Your task to perform on an android device: turn on the 24-hour format for clock Image 0: 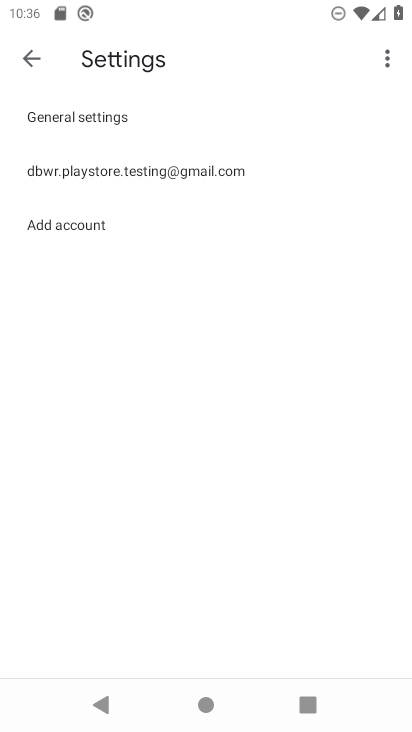
Step 0: press home button
Your task to perform on an android device: turn on the 24-hour format for clock Image 1: 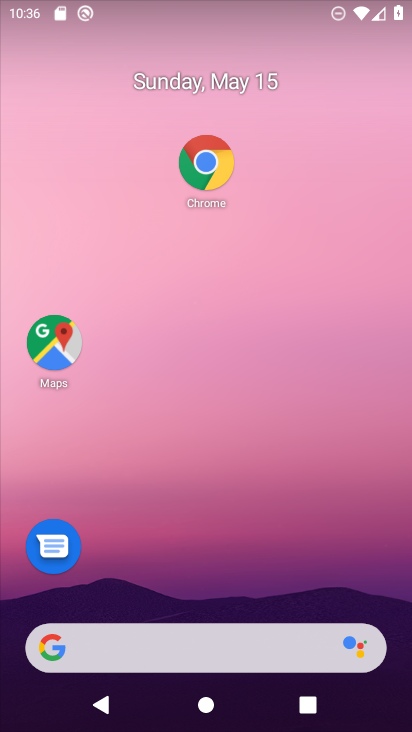
Step 1: drag from (257, 547) to (362, 190)
Your task to perform on an android device: turn on the 24-hour format for clock Image 2: 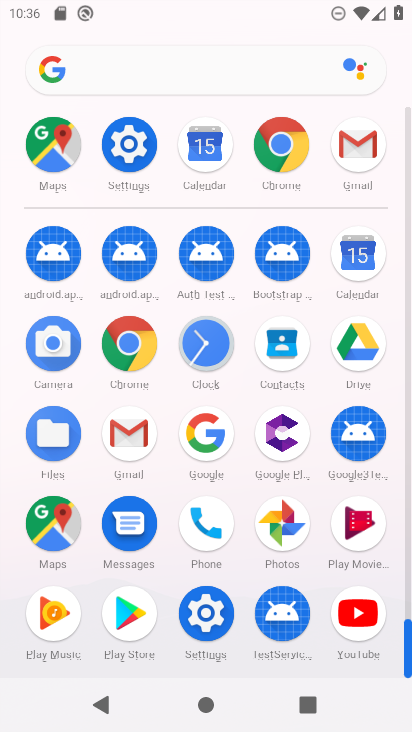
Step 2: click (201, 339)
Your task to perform on an android device: turn on the 24-hour format for clock Image 3: 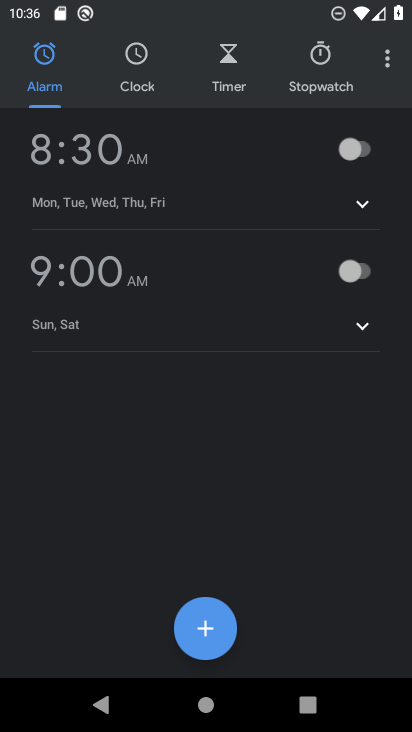
Step 3: click (370, 54)
Your task to perform on an android device: turn on the 24-hour format for clock Image 4: 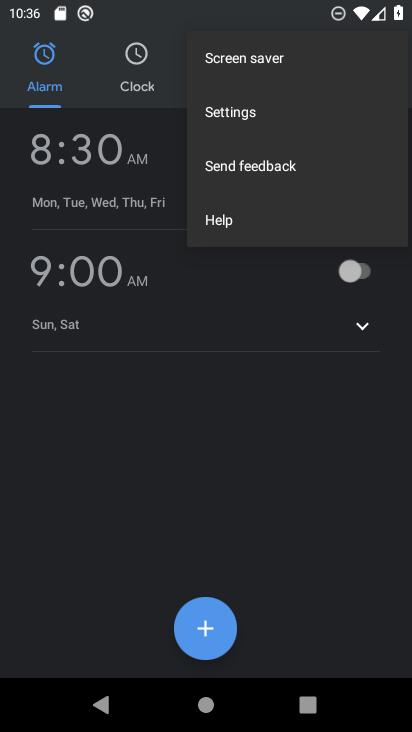
Step 4: click (290, 118)
Your task to perform on an android device: turn on the 24-hour format for clock Image 5: 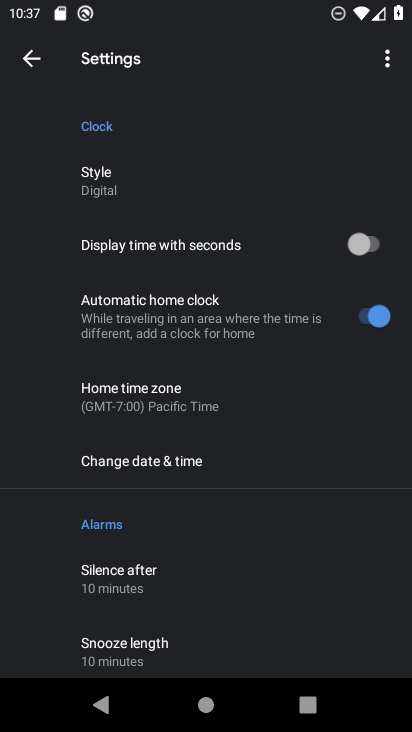
Step 5: click (281, 558)
Your task to perform on an android device: turn on the 24-hour format for clock Image 6: 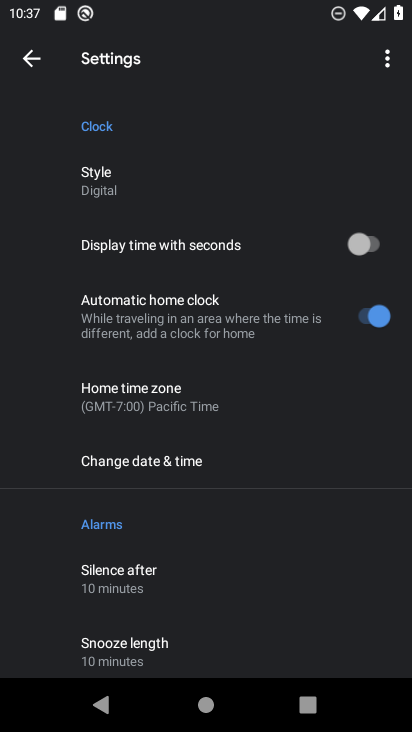
Step 6: click (171, 459)
Your task to perform on an android device: turn on the 24-hour format for clock Image 7: 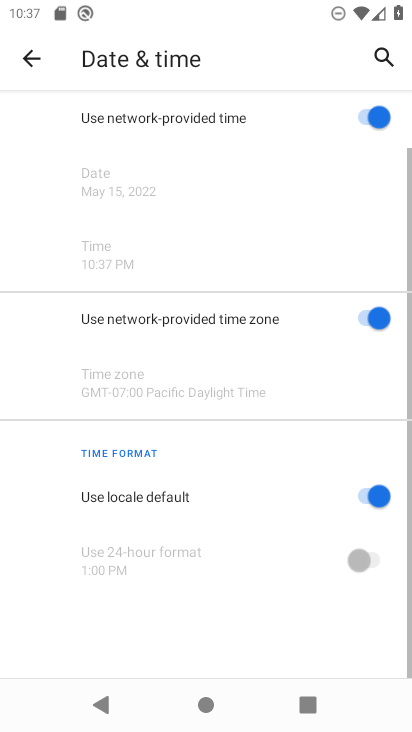
Step 7: drag from (215, 627) to (263, 376)
Your task to perform on an android device: turn on the 24-hour format for clock Image 8: 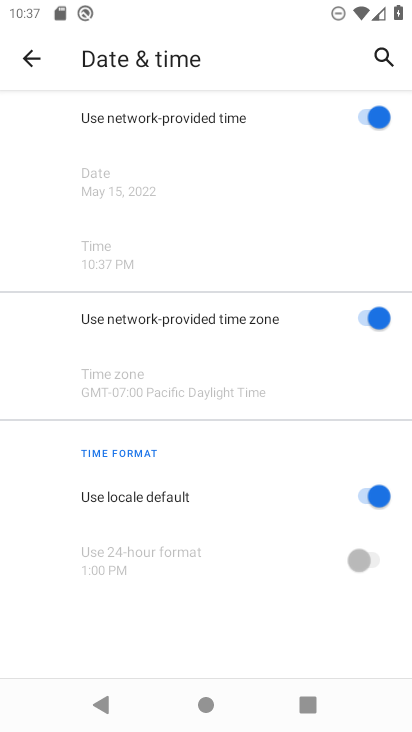
Step 8: click (356, 493)
Your task to perform on an android device: turn on the 24-hour format for clock Image 9: 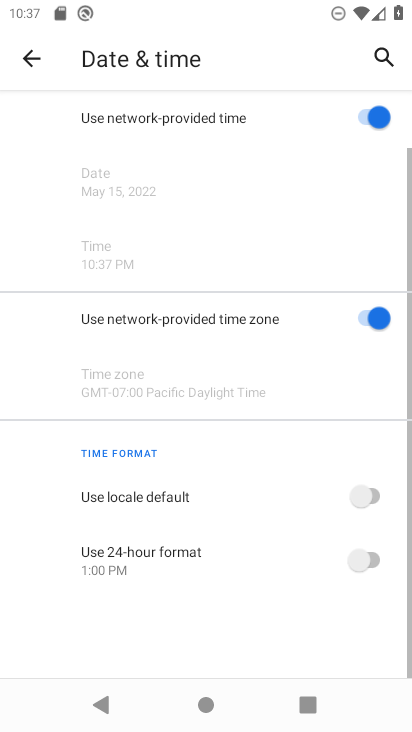
Step 9: click (367, 556)
Your task to perform on an android device: turn on the 24-hour format for clock Image 10: 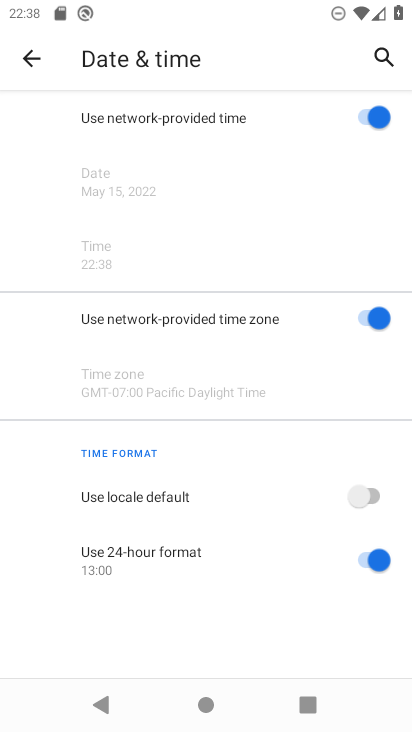
Step 10: task complete